Your task to perform on an android device: move an email to a new category in the gmail app Image 0: 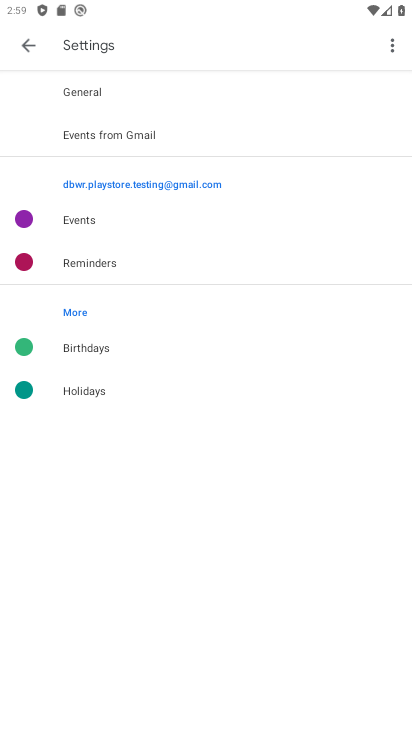
Step 0: press home button
Your task to perform on an android device: move an email to a new category in the gmail app Image 1: 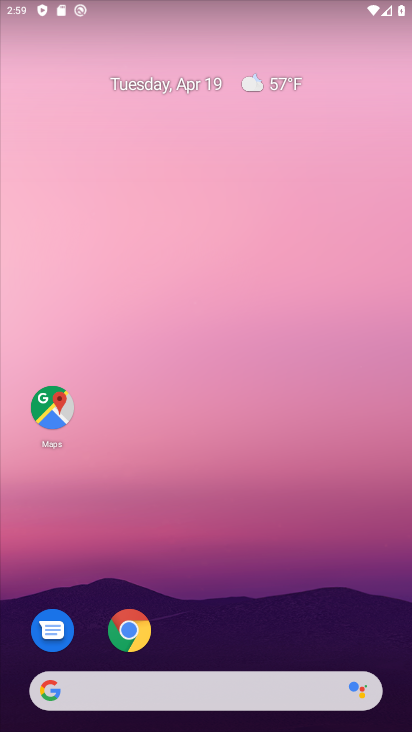
Step 1: drag from (261, 630) to (254, 151)
Your task to perform on an android device: move an email to a new category in the gmail app Image 2: 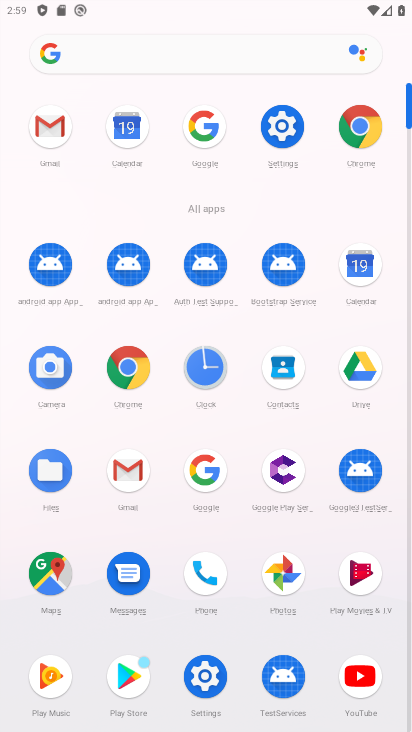
Step 2: click (44, 138)
Your task to perform on an android device: move an email to a new category in the gmail app Image 3: 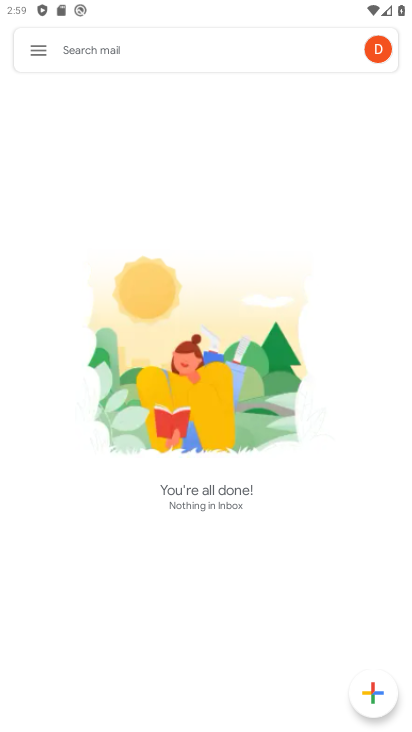
Step 3: click (38, 55)
Your task to perform on an android device: move an email to a new category in the gmail app Image 4: 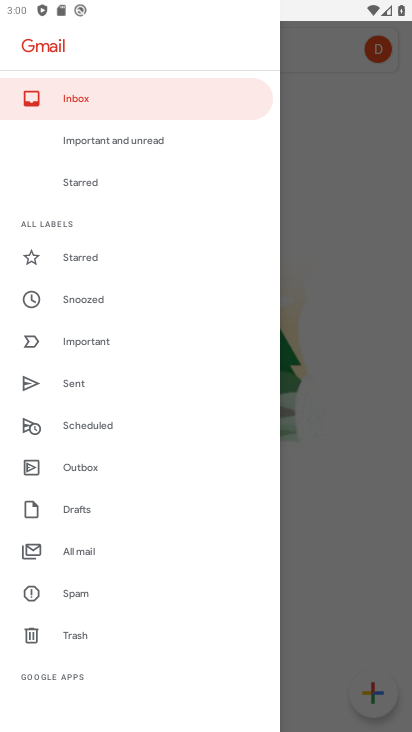
Step 4: click (111, 549)
Your task to perform on an android device: move an email to a new category in the gmail app Image 5: 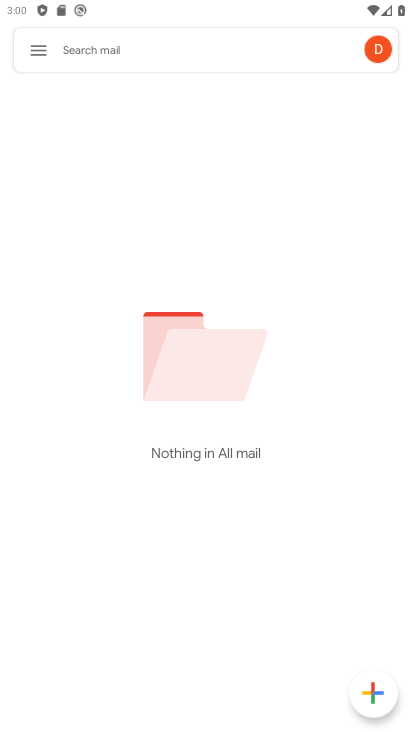
Step 5: task complete